Your task to perform on an android device: Go to notification settings Image 0: 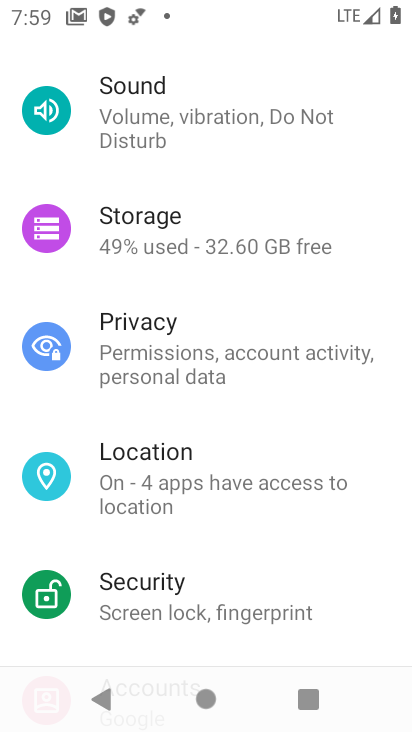
Step 0: drag from (260, 120) to (226, 721)
Your task to perform on an android device: Go to notification settings Image 1: 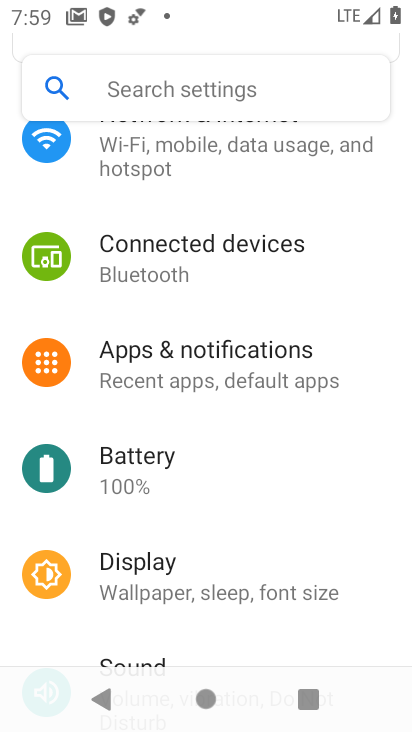
Step 1: drag from (221, 163) to (206, 696)
Your task to perform on an android device: Go to notification settings Image 2: 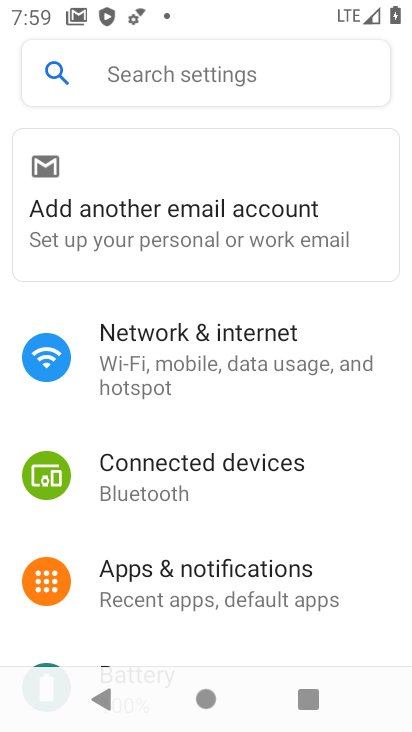
Step 2: click (286, 576)
Your task to perform on an android device: Go to notification settings Image 3: 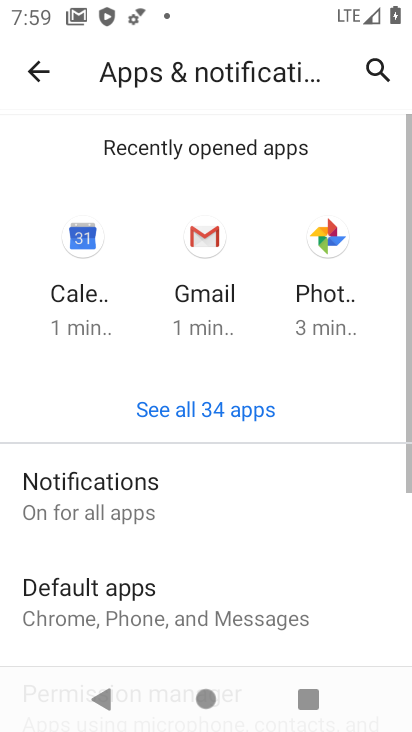
Step 3: task complete